Your task to perform on an android device: What's on my calendar tomorrow? Image 0: 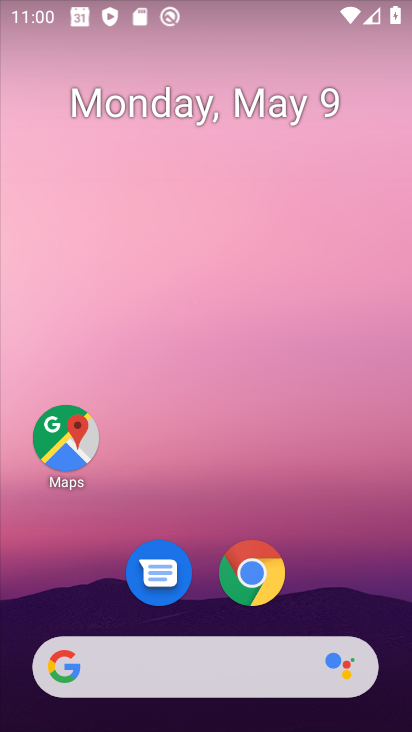
Step 0: drag from (195, 624) to (230, 75)
Your task to perform on an android device: What's on my calendar tomorrow? Image 1: 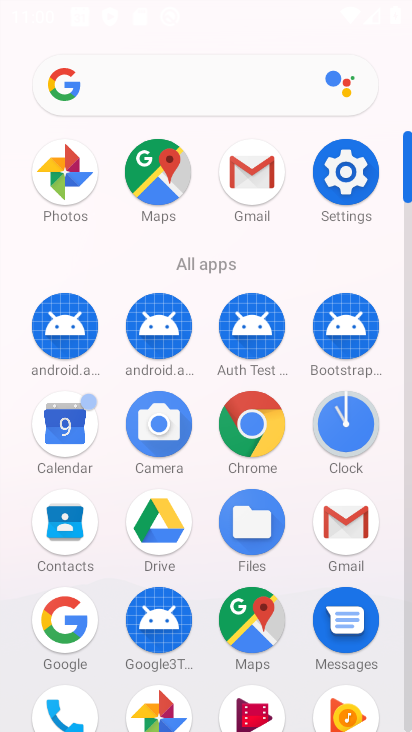
Step 1: click (82, 422)
Your task to perform on an android device: What's on my calendar tomorrow? Image 2: 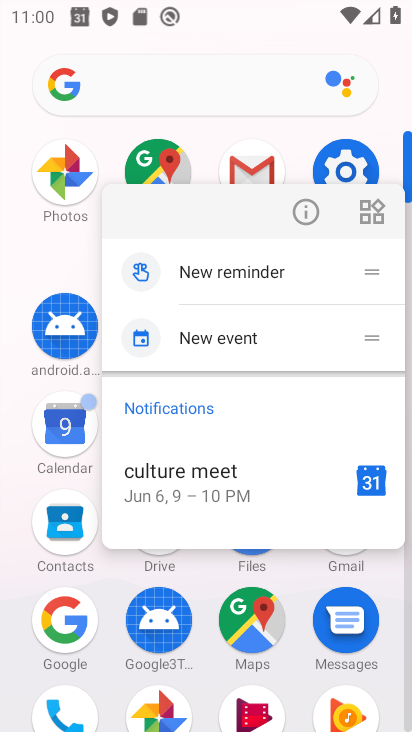
Step 2: click (286, 213)
Your task to perform on an android device: What's on my calendar tomorrow? Image 3: 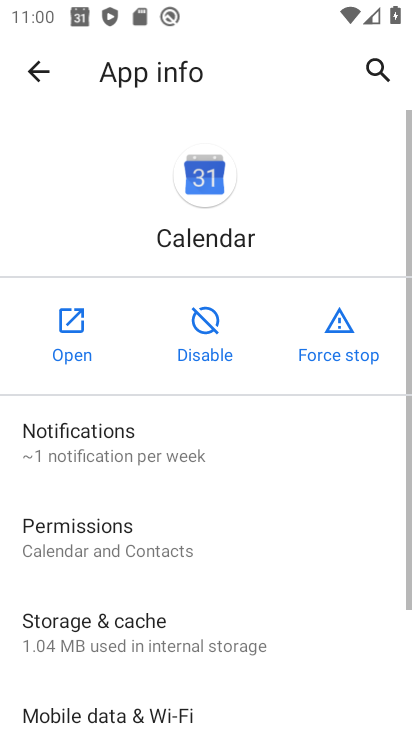
Step 3: click (84, 324)
Your task to perform on an android device: What's on my calendar tomorrow? Image 4: 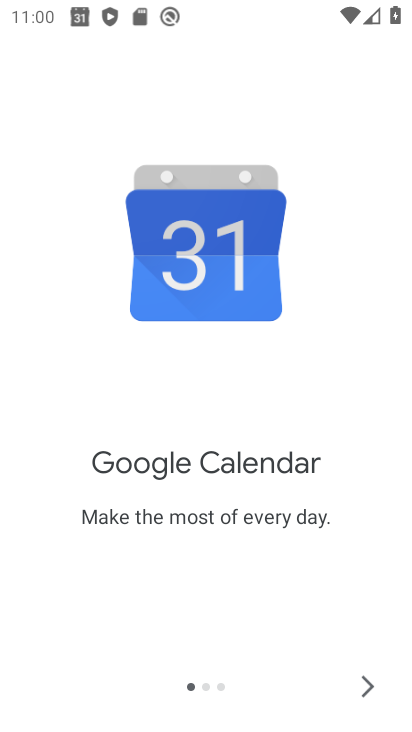
Step 4: click (360, 688)
Your task to perform on an android device: What's on my calendar tomorrow? Image 5: 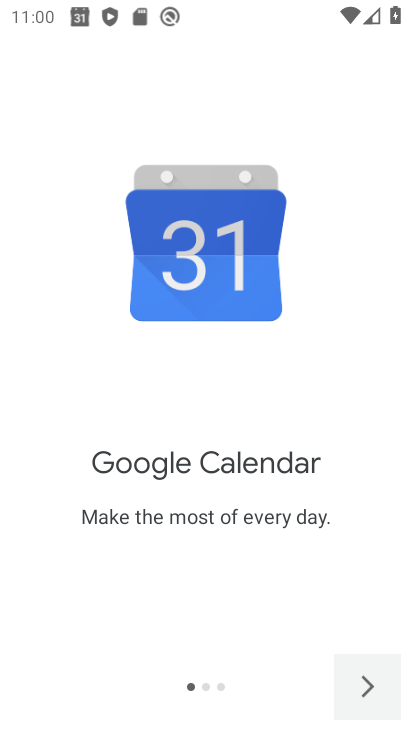
Step 5: click (360, 687)
Your task to perform on an android device: What's on my calendar tomorrow? Image 6: 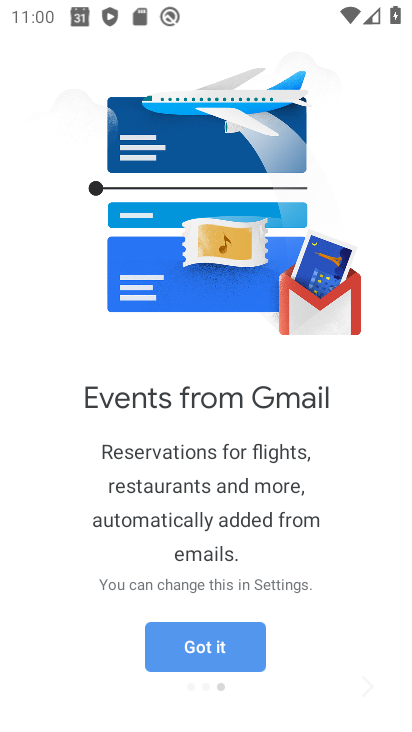
Step 6: click (360, 686)
Your task to perform on an android device: What's on my calendar tomorrow? Image 7: 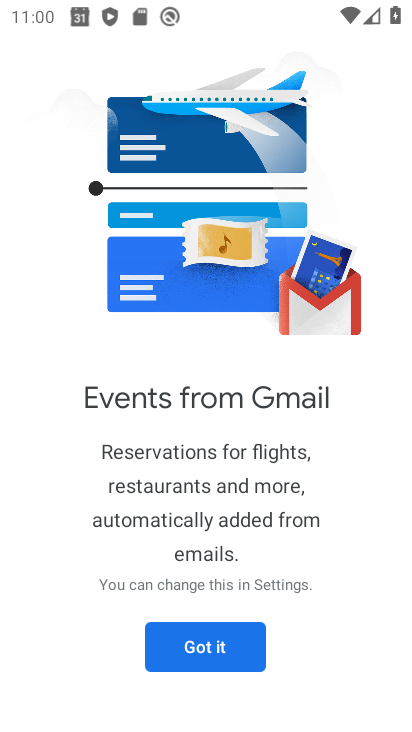
Step 7: click (206, 656)
Your task to perform on an android device: What's on my calendar tomorrow? Image 8: 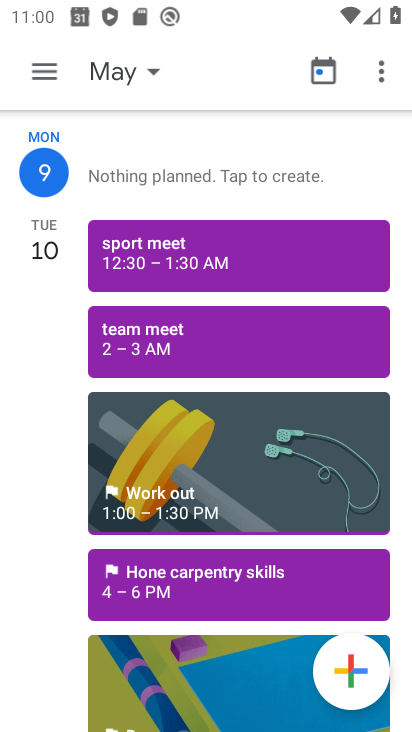
Step 8: click (155, 69)
Your task to perform on an android device: What's on my calendar tomorrow? Image 9: 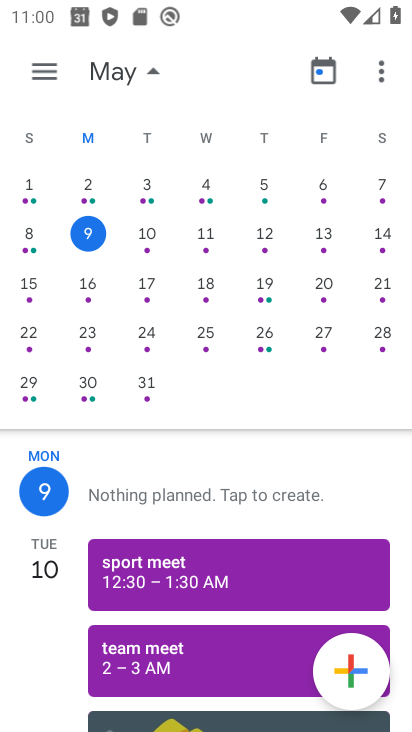
Step 9: click (152, 234)
Your task to perform on an android device: What's on my calendar tomorrow? Image 10: 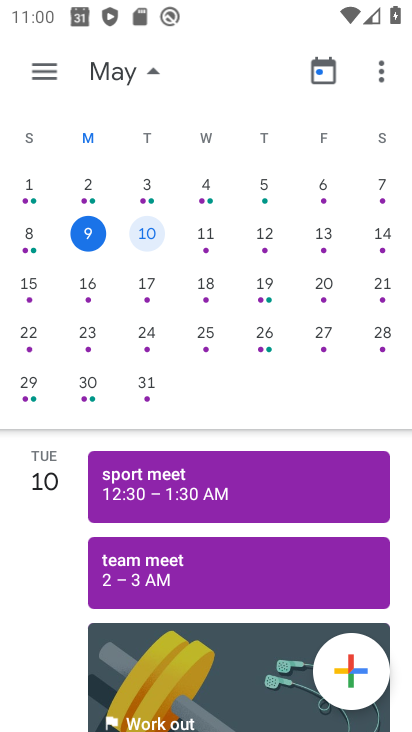
Step 10: task complete